Your task to perform on an android device: Set the phone to "Do not disturb". Image 0: 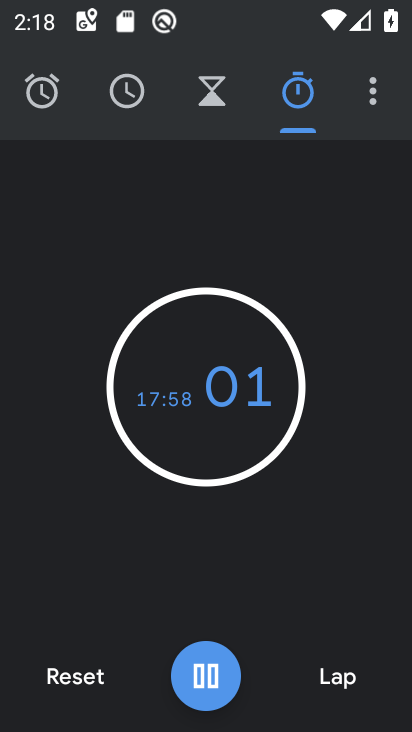
Step 0: press home button
Your task to perform on an android device: Set the phone to "Do not disturb". Image 1: 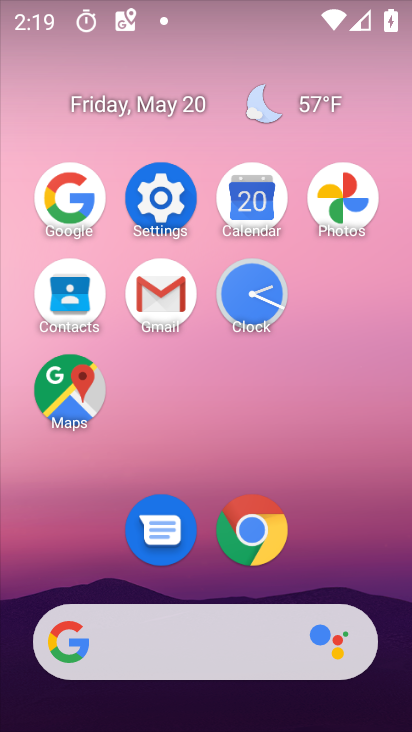
Step 1: click (163, 218)
Your task to perform on an android device: Set the phone to "Do not disturb". Image 2: 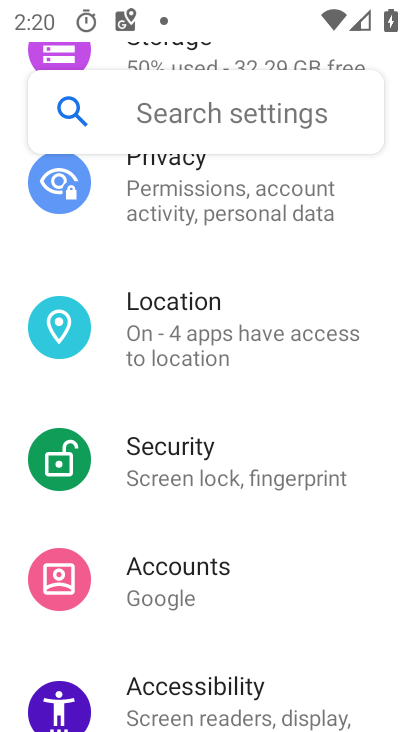
Step 2: drag from (255, 275) to (247, 619)
Your task to perform on an android device: Set the phone to "Do not disturb". Image 3: 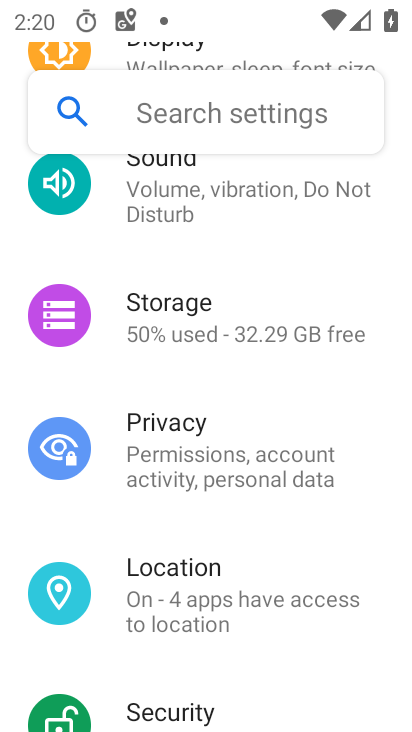
Step 3: click (256, 208)
Your task to perform on an android device: Set the phone to "Do not disturb". Image 4: 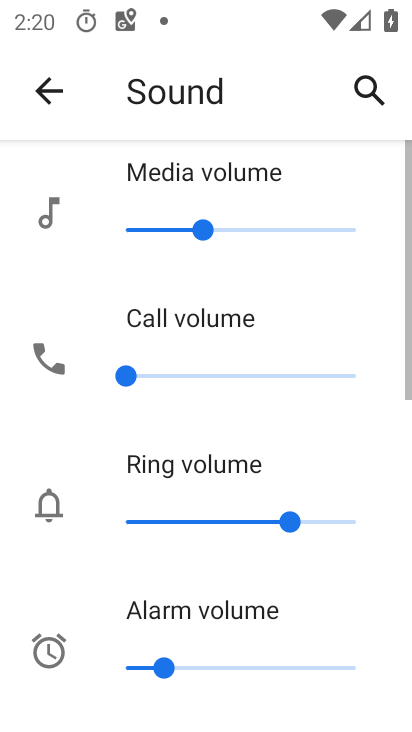
Step 4: drag from (257, 662) to (301, 196)
Your task to perform on an android device: Set the phone to "Do not disturb". Image 5: 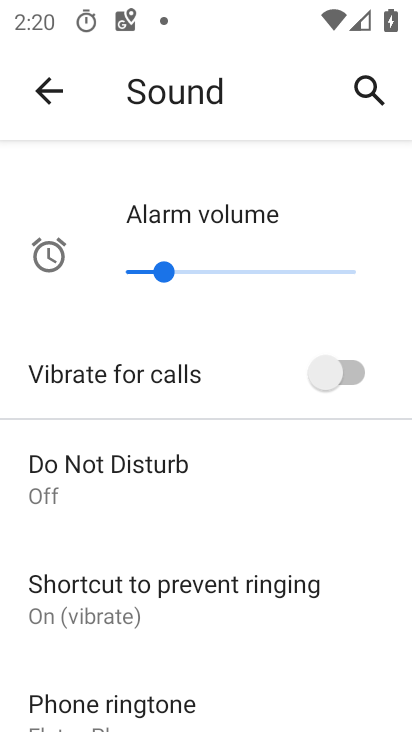
Step 5: click (228, 493)
Your task to perform on an android device: Set the phone to "Do not disturb". Image 6: 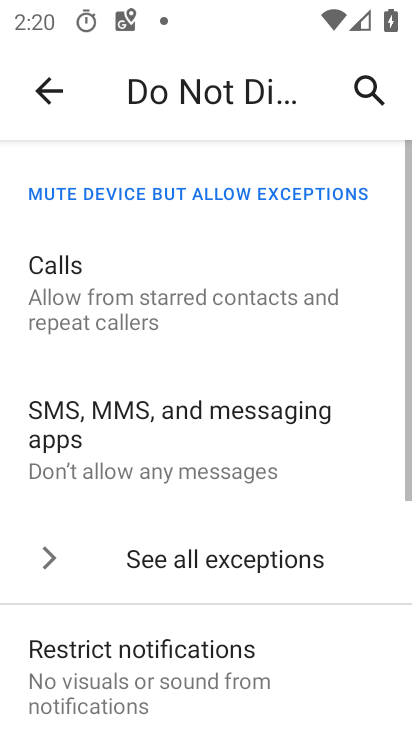
Step 6: drag from (210, 595) to (225, 204)
Your task to perform on an android device: Set the phone to "Do not disturb". Image 7: 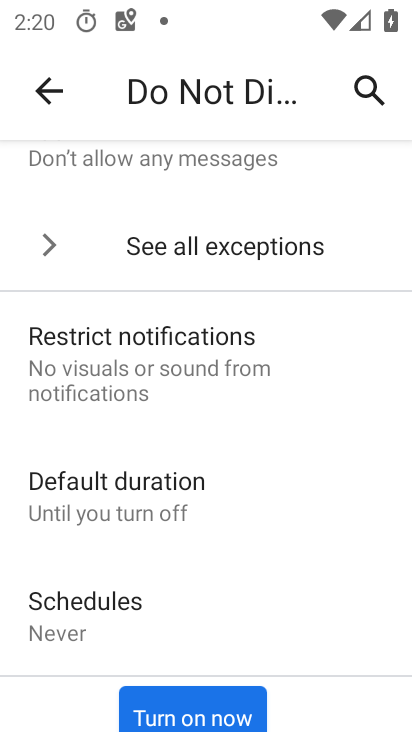
Step 7: click (183, 722)
Your task to perform on an android device: Set the phone to "Do not disturb". Image 8: 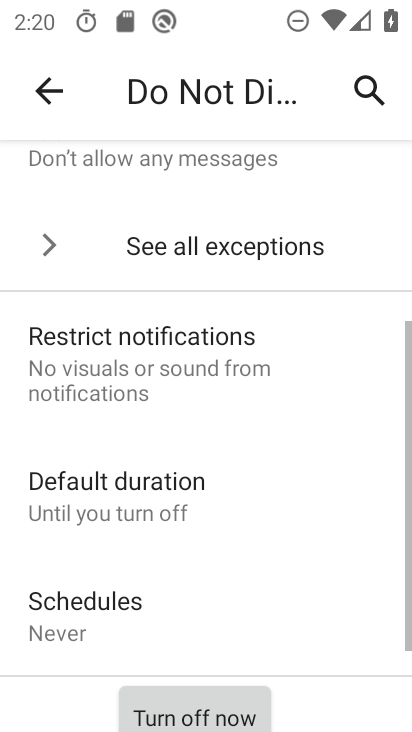
Step 8: task complete